Your task to perform on an android device: Search for vegetarian restaurants on Maps Image 0: 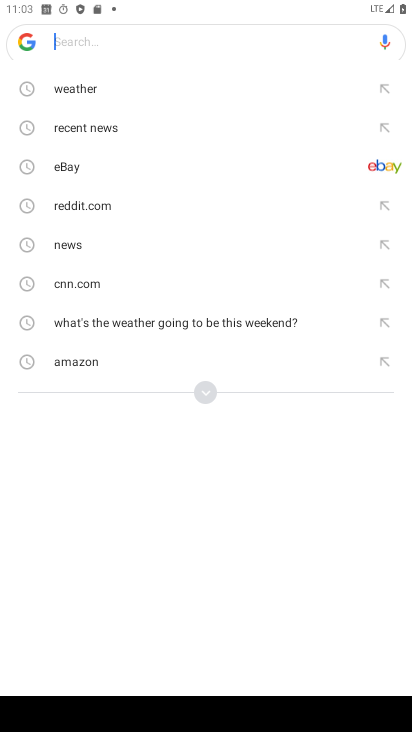
Step 0: press home button
Your task to perform on an android device: Search for vegetarian restaurants on Maps Image 1: 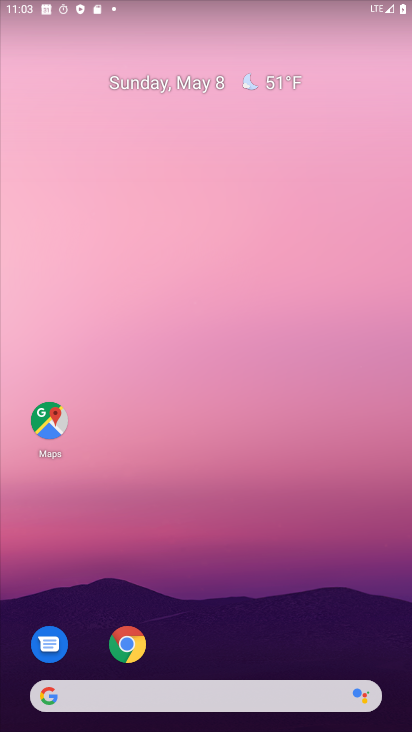
Step 1: drag from (205, 546) to (254, 74)
Your task to perform on an android device: Search for vegetarian restaurants on Maps Image 2: 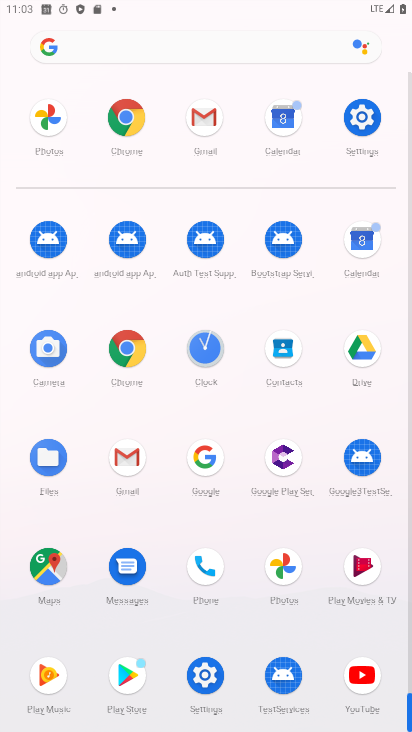
Step 2: click (51, 561)
Your task to perform on an android device: Search for vegetarian restaurants on Maps Image 3: 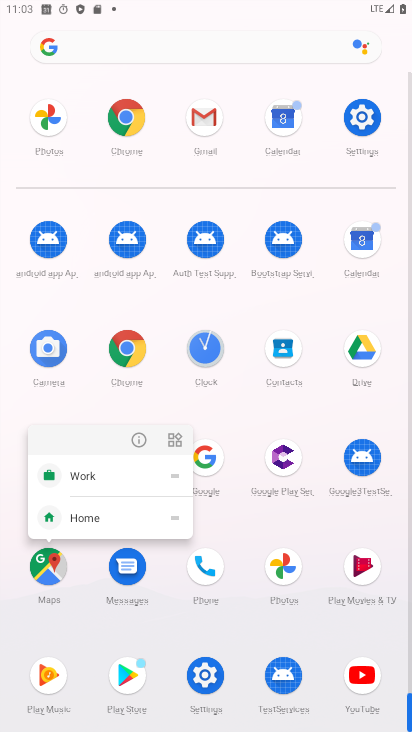
Step 3: click (136, 441)
Your task to perform on an android device: Search for vegetarian restaurants on Maps Image 4: 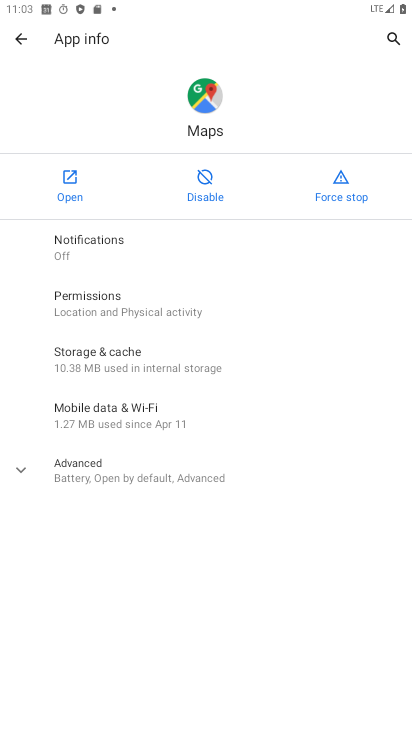
Step 4: click (66, 176)
Your task to perform on an android device: Search for vegetarian restaurants on Maps Image 5: 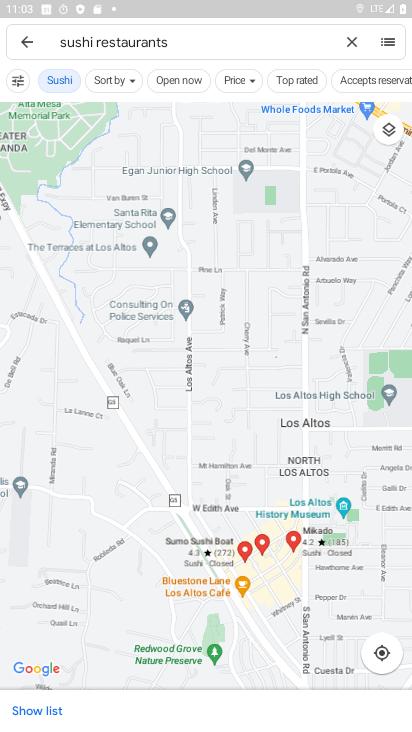
Step 5: click (355, 43)
Your task to perform on an android device: Search for vegetarian restaurants on Maps Image 6: 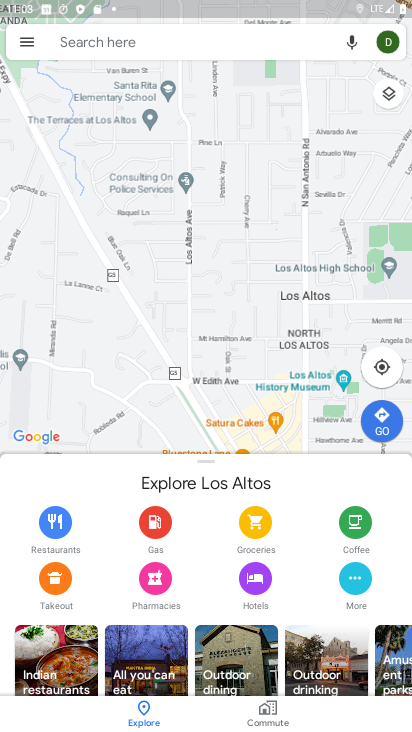
Step 6: click (213, 31)
Your task to perform on an android device: Search for vegetarian restaurants on Maps Image 7: 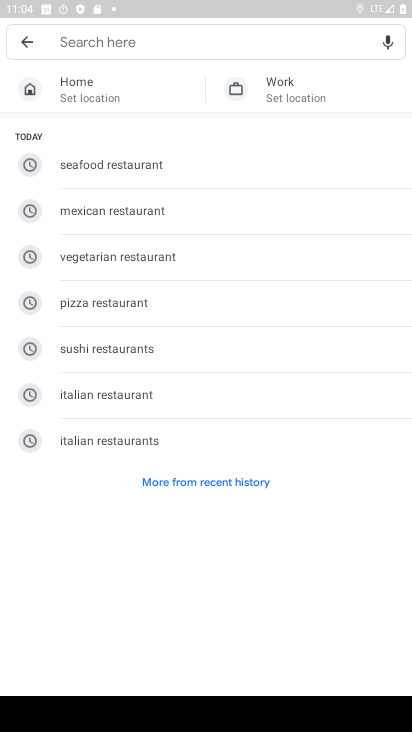
Step 7: click (89, 251)
Your task to perform on an android device: Search for vegetarian restaurants on Maps Image 8: 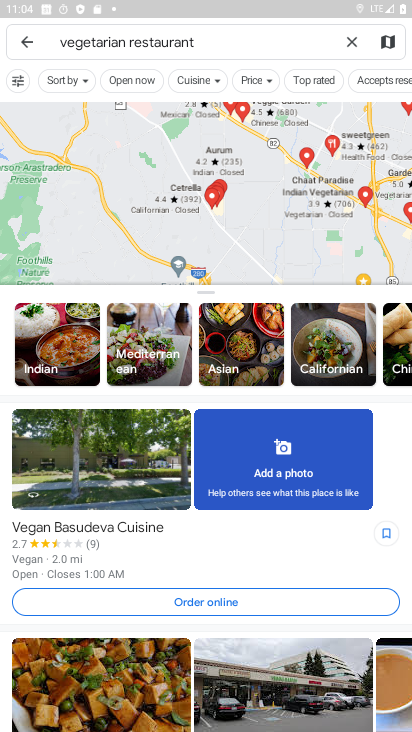
Step 8: task complete